Your task to perform on an android device: Open the calendar app, open the side menu, and click the "Day" option Image 0: 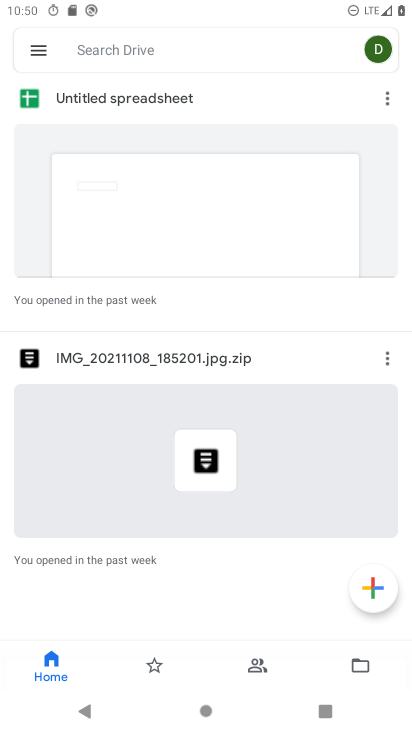
Step 0: press home button
Your task to perform on an android device: Open the calendar app, open the side menu, and click the "Day" option Image 1: 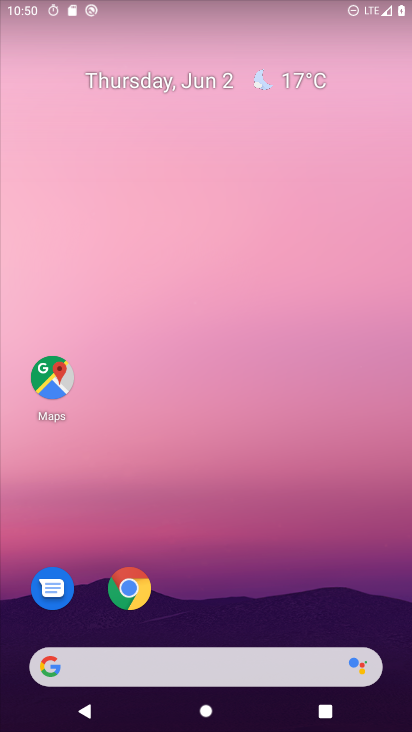
Step 1: drag from (249, 617) to (347, 222)
Your task to perform on an android device: Open the calendar app, open the side menu, and click the "Day" option Image 2: 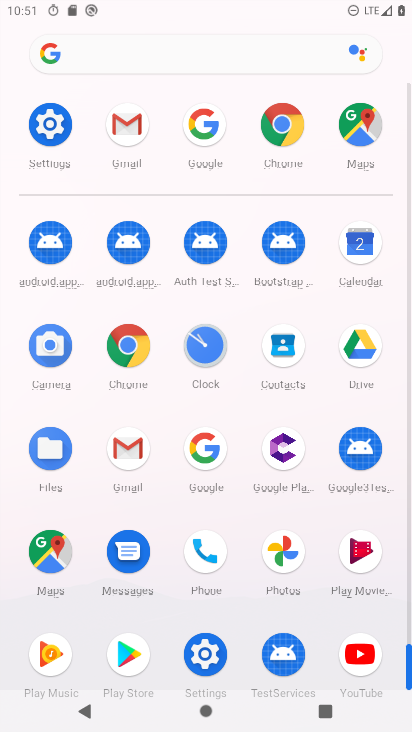
Step 2: click (372, 243)
Your task to perform on an android device: Open the calendar app, open the side menu, and click the "Day" option Image 3: 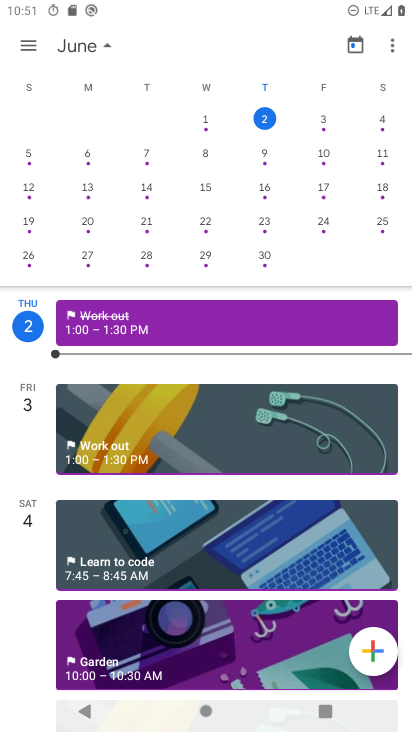
Step 3: click (20, 43)
Your task to perform on an android device: Open the calendar app, open the side menu, and click the "Day" option Image 4: 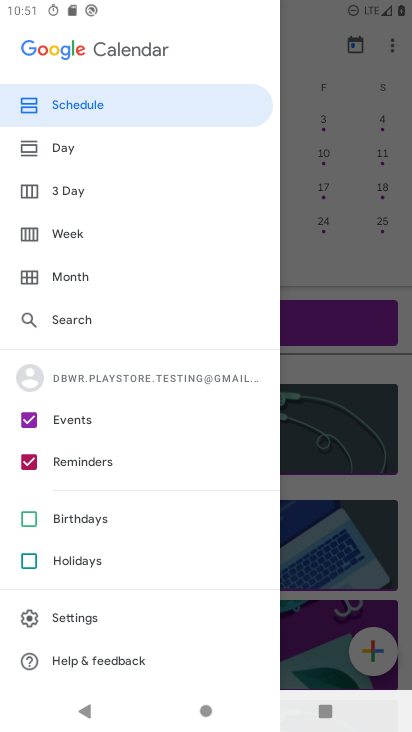
Step 4: click (96, 159)
Your task to perform on an android device: Open the calendar app, open the side menu, and click the "Day" option Image 5: 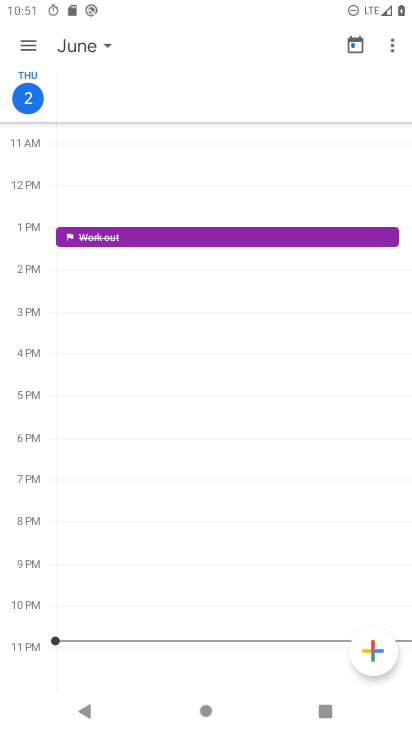
Step 5: task complete